Your task to perform on an android device: Check the weather Image 0: 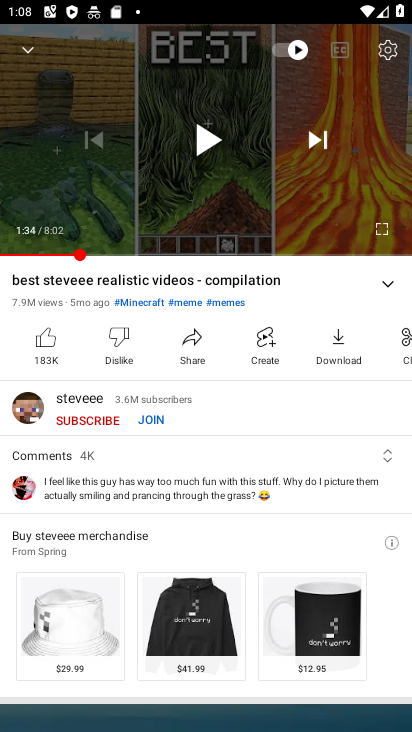
Step 0: press home button
Your task to perform on an android device: Check the weather Image 1: 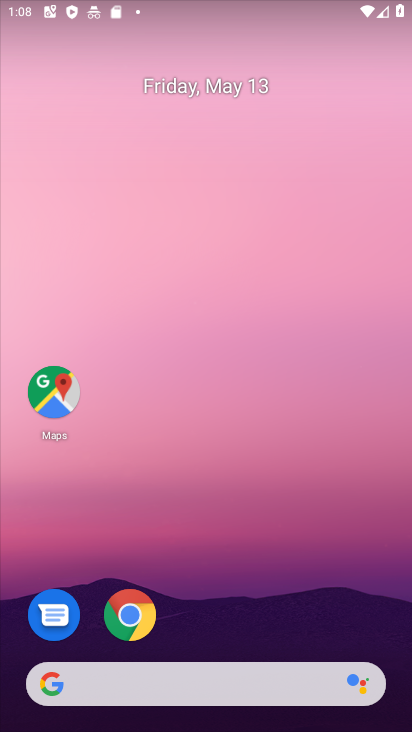
Step 1: drag from (210, 630) to (282, 252)
Your task to perform on an android device: Check the weather Image 2: 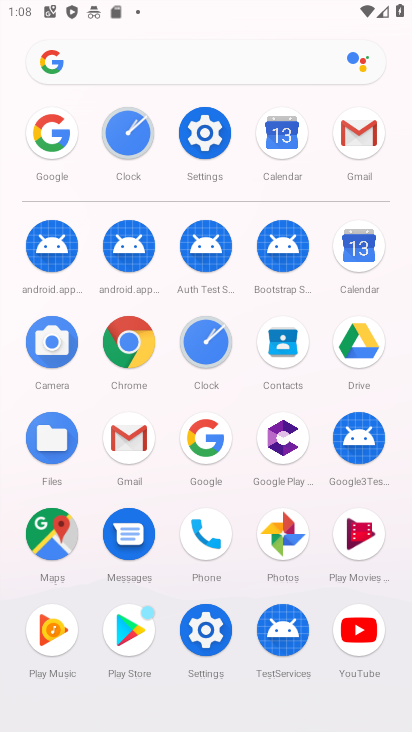
Step 2: click (67, 141)
Your task to perform on an android device: Check the weather Image 3: 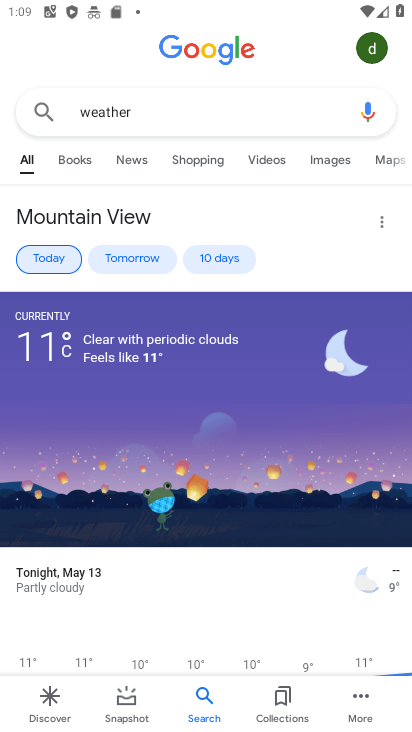
Step 3: task complete